Your task to perform on an android device: turn pop-ups off in chrome Image 0: 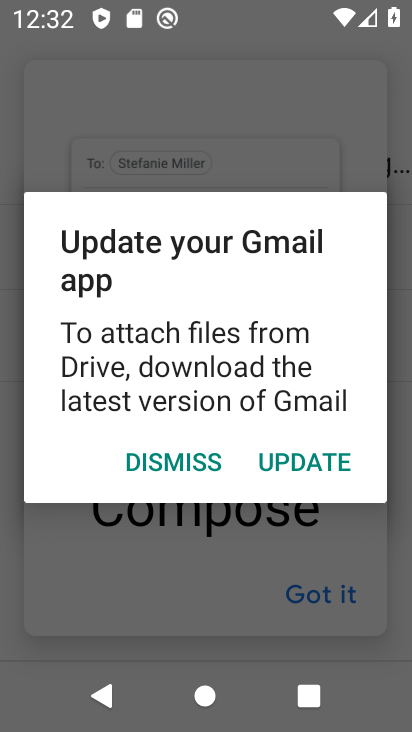
Step 0: press back button
Your task to perform on an android device: turn pop-ups off in chrome Image 1: 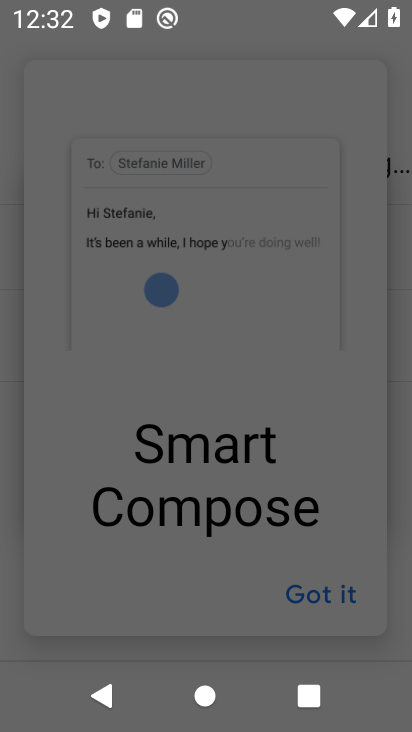
Step 1: press back button
Your task to perform on an android device: turn pop-ups off in chrome Image 2: 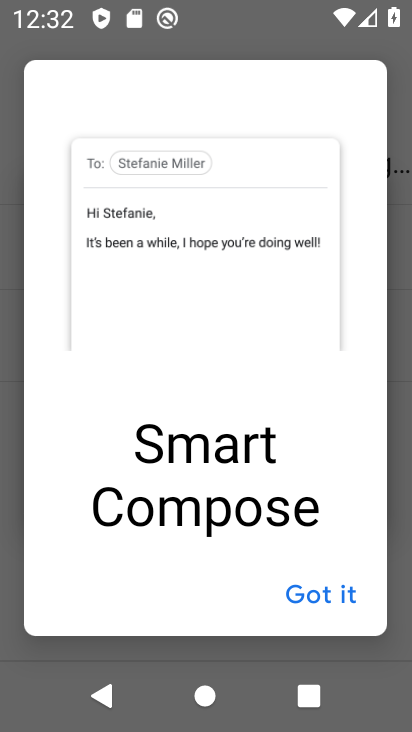
Step 2: press back button
Your task to perform on an android device: turn pop-ups off in chrome Image 3: 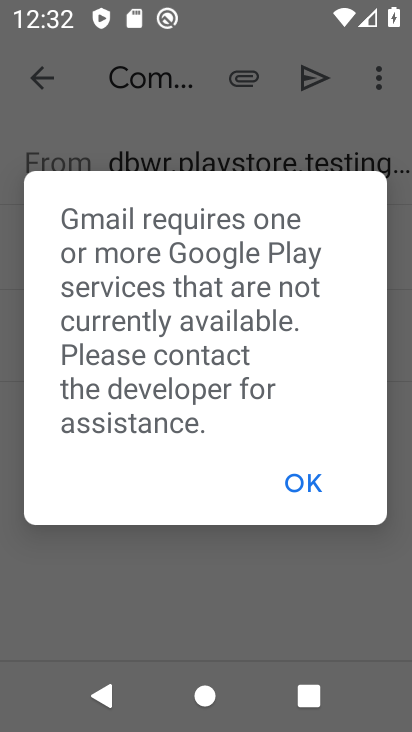
Step 3: press back button
Your task to perform on an android device: turn pop-ups off in chrome Image 4: 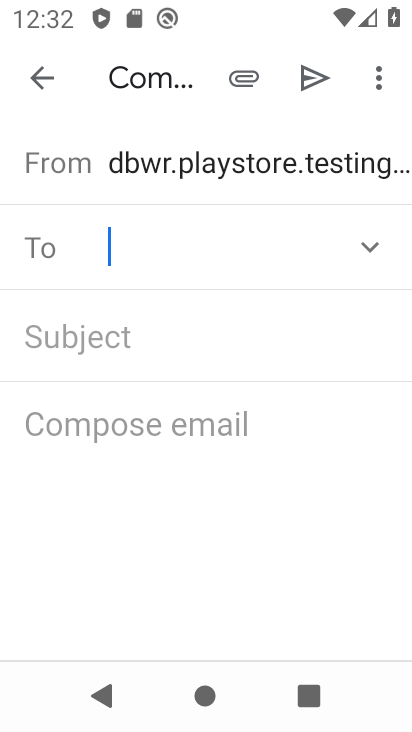
Step 4: press back button
Your task to perform on an android device: turn pop-ups off in chrome Image 5: 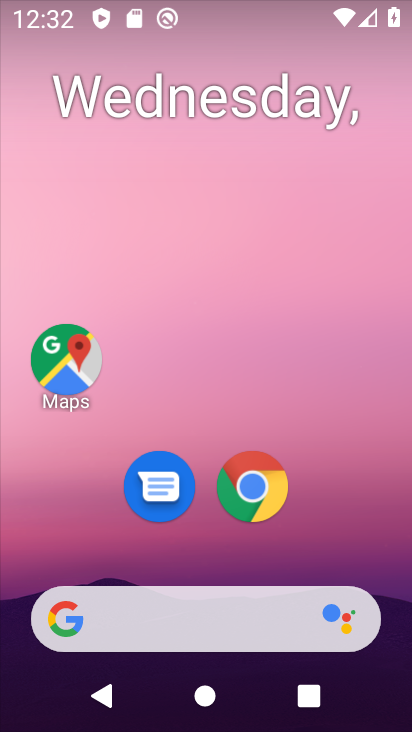
Step 5: drag from (177, 568) to (280, 35)
Your task to perform on an android device: turn pop-ups off in chrome Image 6: 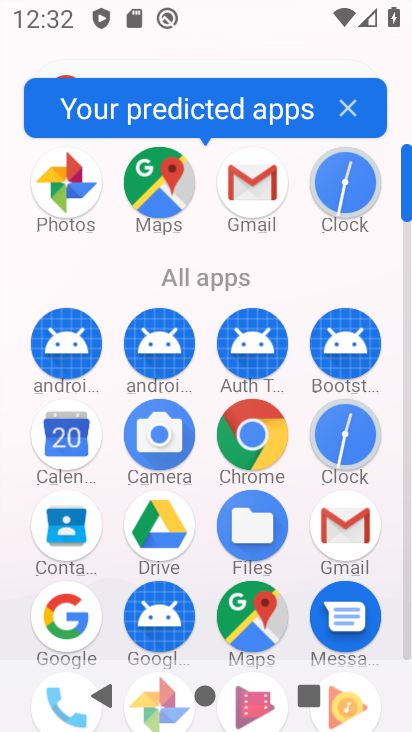
Step 6: drag from (198, 594) to (262, 319)
Your task to perform on an android device: turn pop-ups off in chrome Image 7: 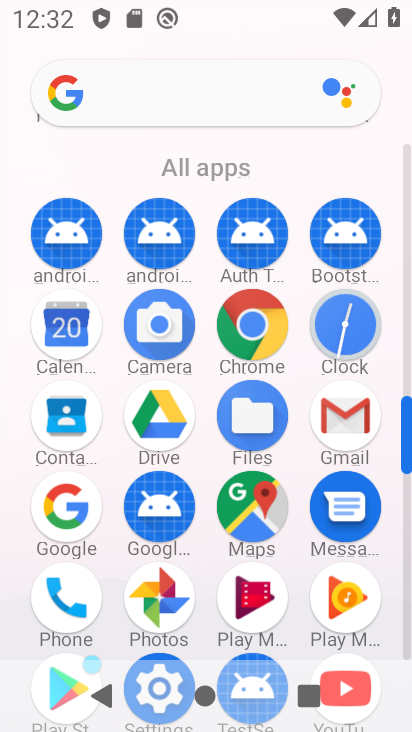
Step 7: click (261, 326)
Your task to perform on an android device: turn pop-ups off in chrome Image 8: 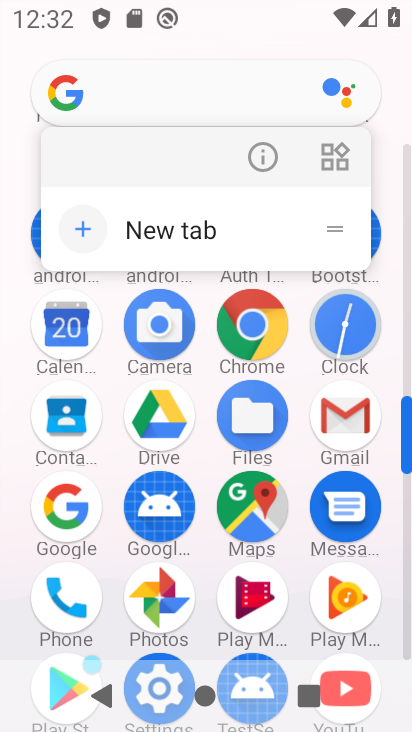
Step 8: click (263, 325)
Your task to perform on an android device: turn pop-ups off in chrome Image 9: 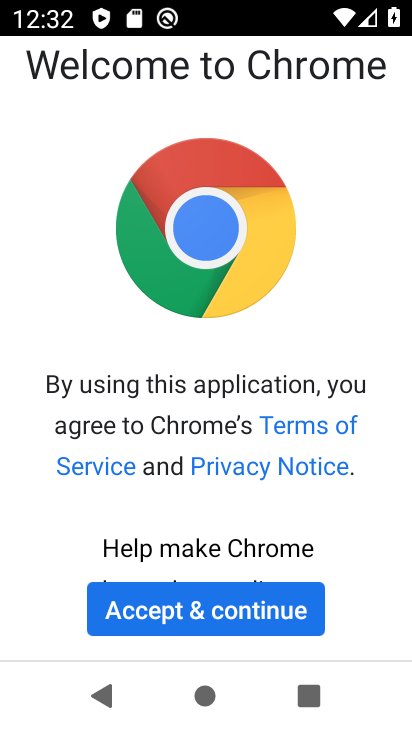
Step 9: click (239, 601)
Your task to perform on an android device: turn pop-ups off in chrome Image 10: 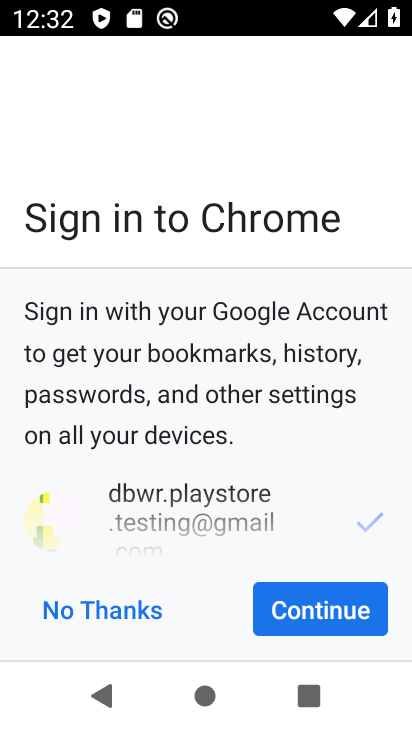
Step 10: click (330, 599)
Your task to perform on an android device: turn pop-ups off in chrome Image 11: 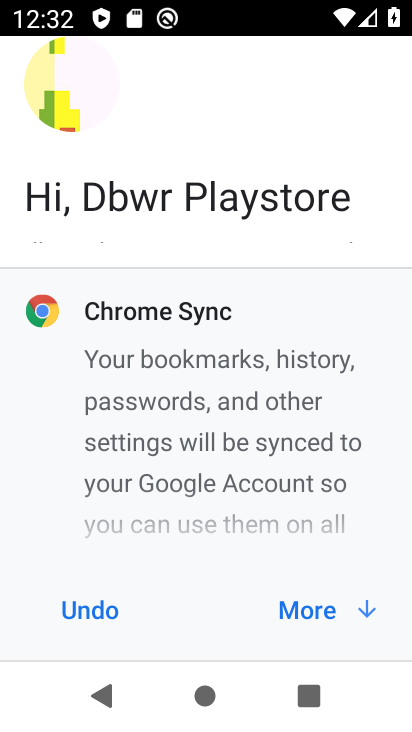
Step 11: click (329, 600)
Your task to perform on an android device: turn pop-ups off in chrome Image 12: 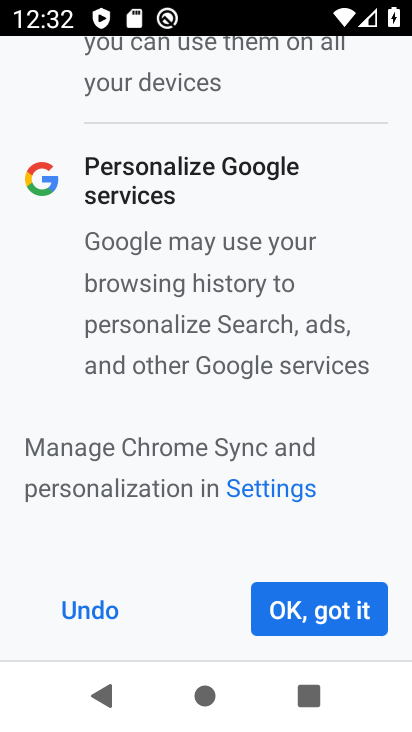
Step 12: click (329, 600)
Your task to perform on an android device: turn pop-ups off in chrome Image 13: 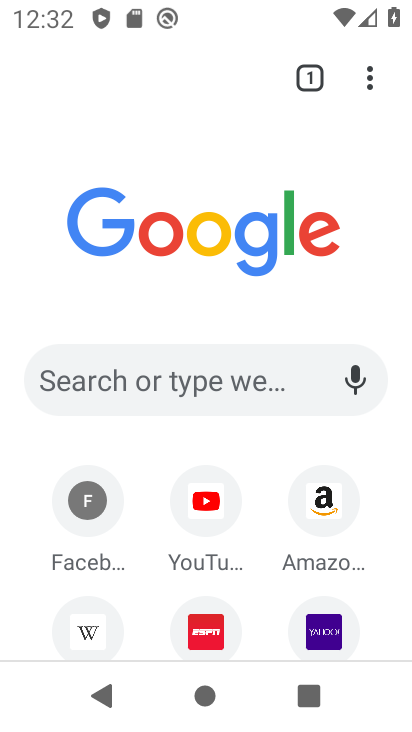
Step 13: click (382, 83)
Your task to perform on an android device: turn pop-ups off in chrome Image 14: 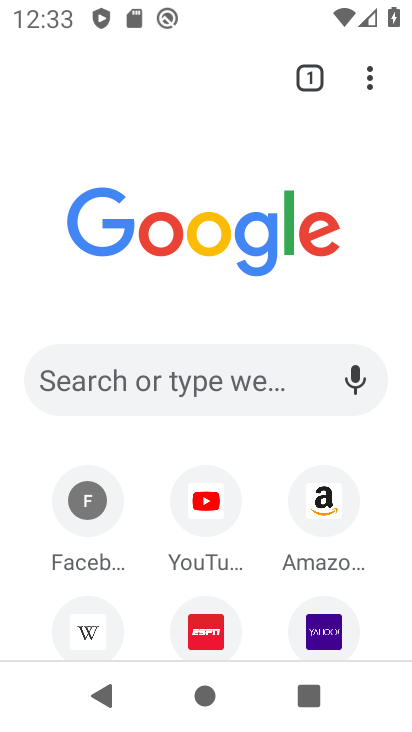
Step 14: drag from (377, 84) to (218, 565)
Your task to perform on an android device: turn pop-ups off in chrome Image 15: 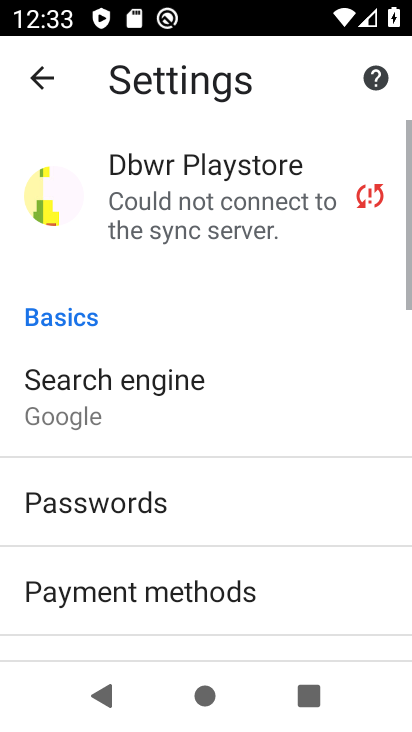
Step 15: drag from (229, 535) to (333, 84)
Your task to perform on an android device: turn pop-ups off in chrome Image 16: 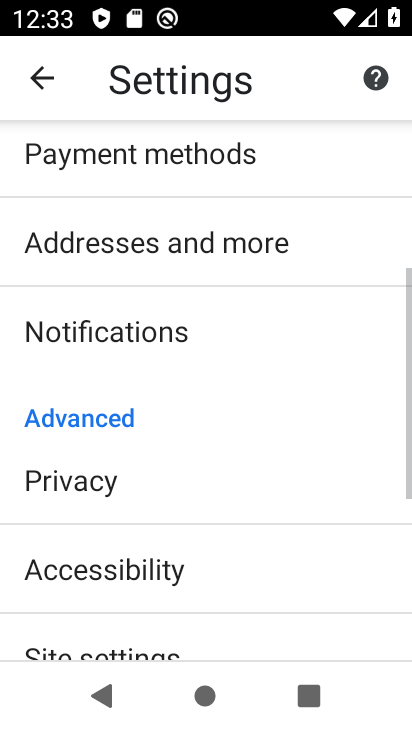
Step 16: drag from (231, 496) to (281, 329)
Your task to perform on an android device: turn pop-ups off in chrome Image 17: 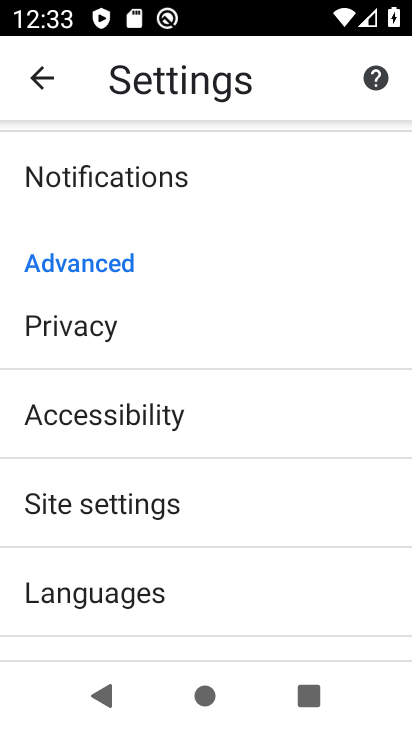
Step 17: click (201, 515)
Your task to perform on an android device: turn pop-ups off in chrome Image 18: 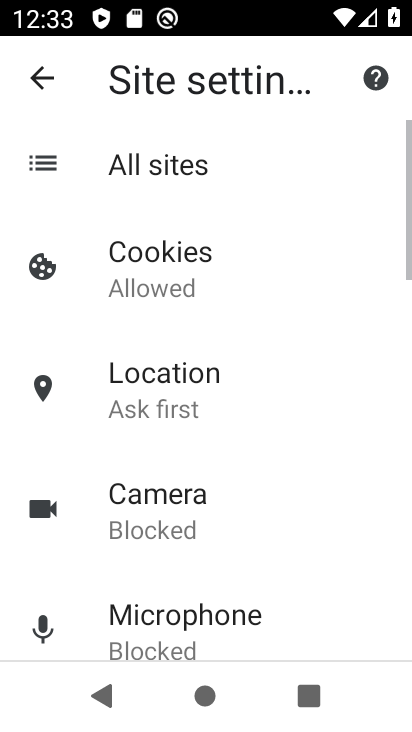
Step 18: drag from (161, 596) to (267, 381)
Your task to perform on an android device: turn pop-ups off in chrome Image 19: 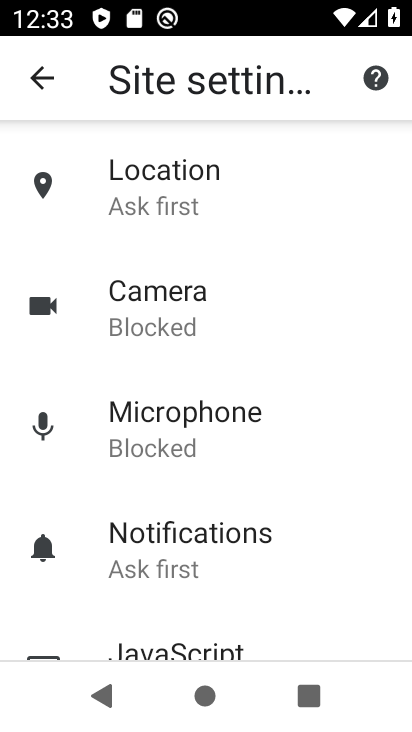
Step 19: drag from (219, 536) to (292, 192)
Your task to perform on an android device: turn pop-ups off in chrome Image 20: 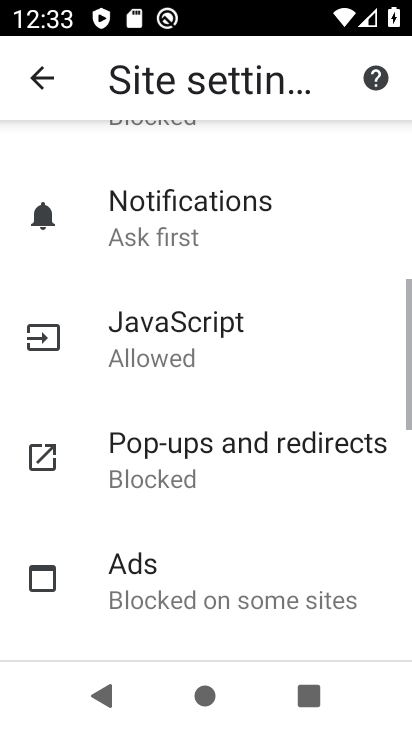
Step 20: click (211, 466)
Your task to perform on an android device: turn pop-ups off in chrome Image 21: 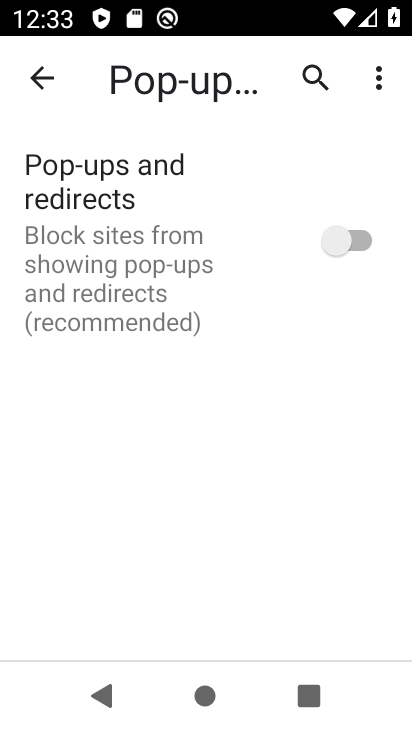
Step 21: task complete